Your task to perform on an android device: Is it going to rain today? Image 0: 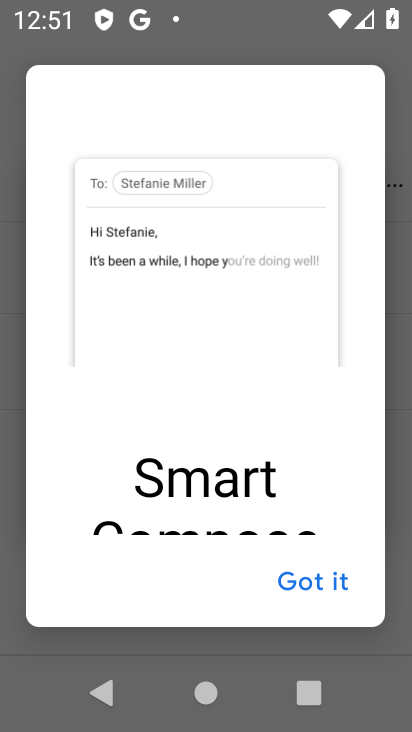
Step 0: press home button
Your task to perform on an android device: Is it going to rain today? Image 1: 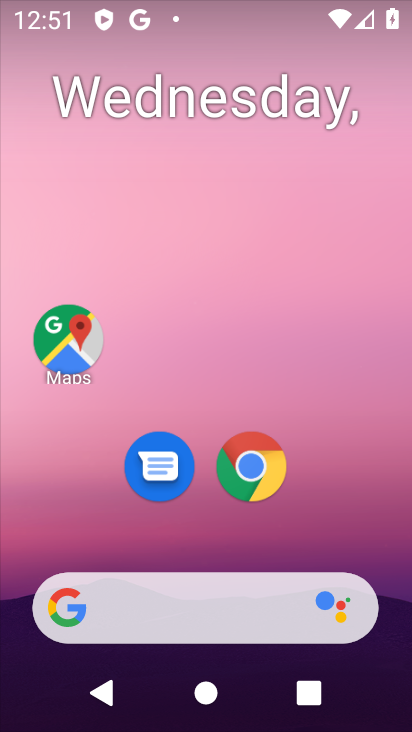
Step 1: click (185, 607)
Your task to perform on an android device: Is it going to rain today? Image 2: 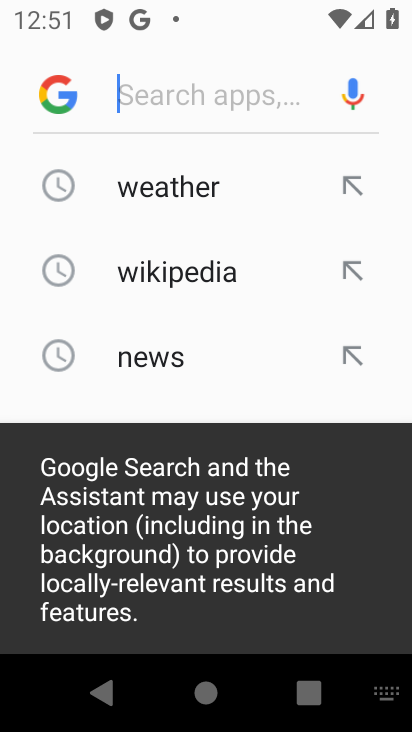
Step 2: click (174, 198)
Your task to perform on an android device: Is it going to rain today? Image 3: 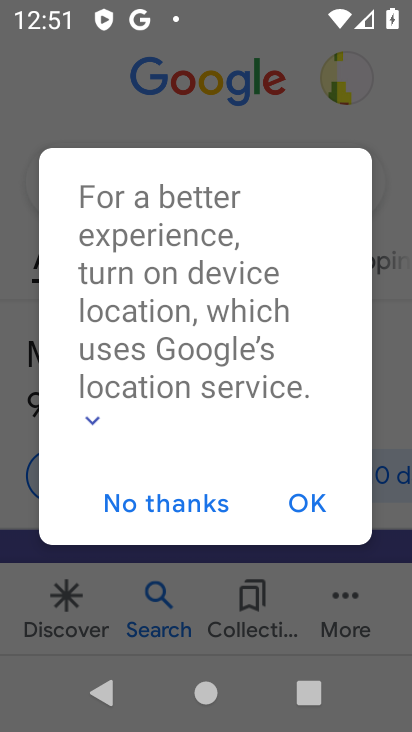
Step 3: click (293, 502)
Your task to perform on an android device: Is it going to rain today? Image 4: 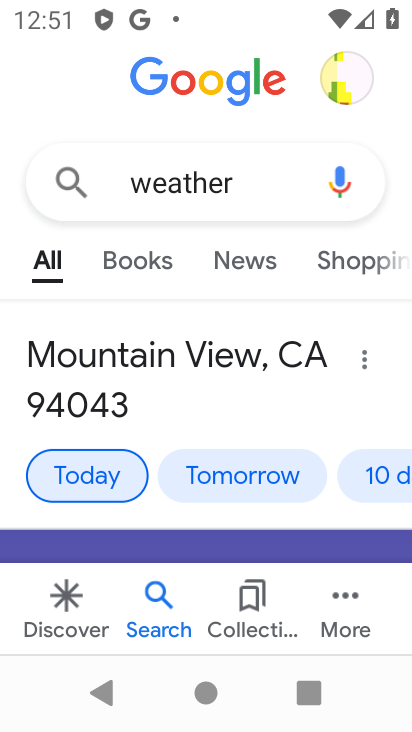
Step 4: task complete